Your task to perform on an android device: Set the phone to "Do not disturb". Image 0: 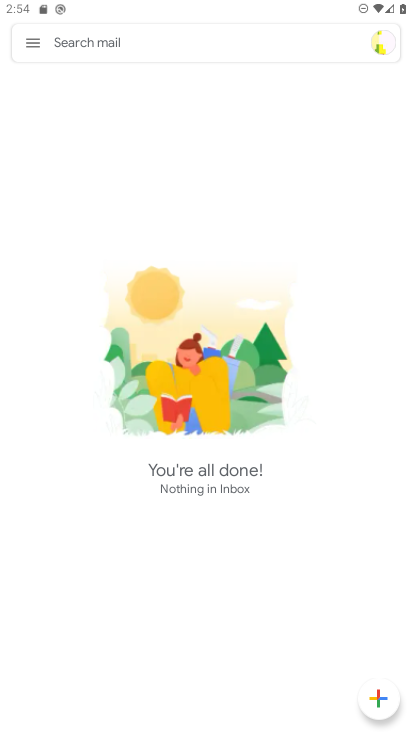
Step 0: click (36, 42)
Your task to perform on an android device: Set the phone to "Do not disturb". Image 1: 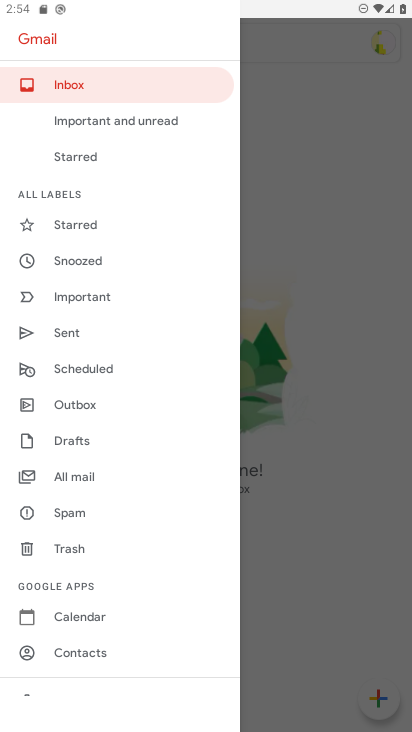
Step 1: click (296, 559)
Your task to perform on an android device: Set the phone to "Do not disturb". Image 2: 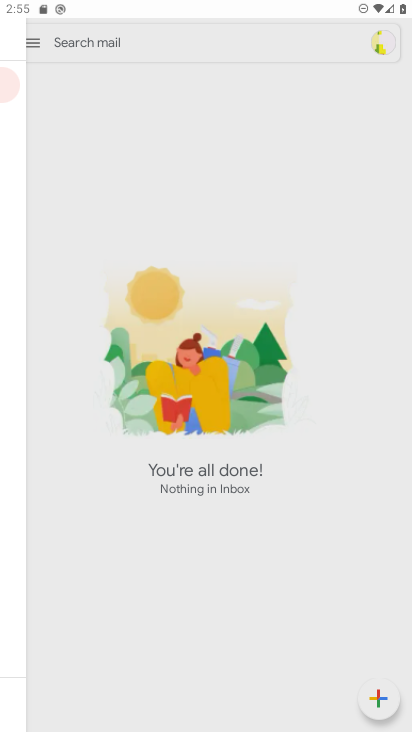
Step 2: click (299, 552)
Your task to perform on an android device: Set the phone to "Do not disturb". Image 3: 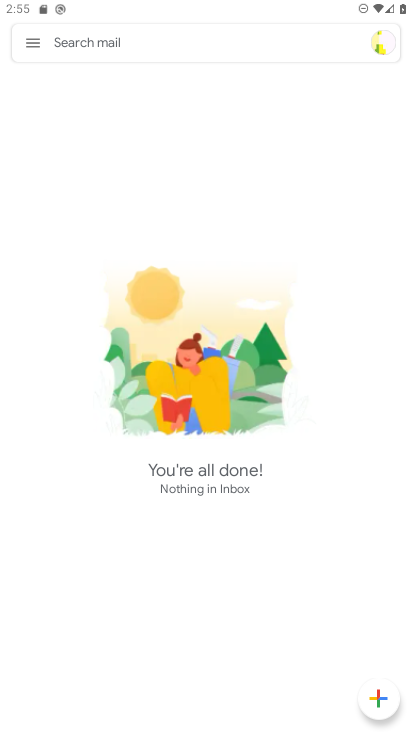
Step 3: click (299, 552)
Your task to perform on an android device: Set the phone to "Do not disturb". Image 4: 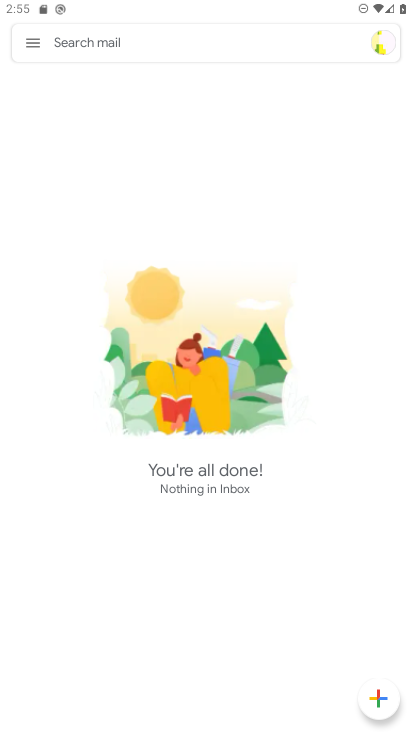
Step 4: click (27, 37)
Your task to perform on an android device: Set the phone to "Do not disturb". Image 5: 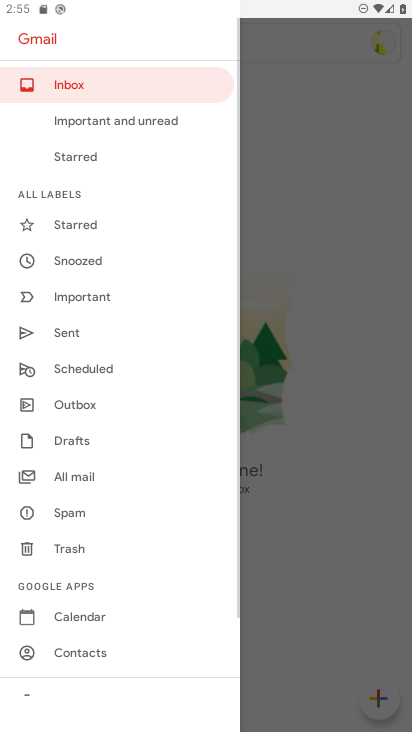
Step 5: click (324, 277)
Your task to perform on an android device: Set the phone to "Do not disturb". Image 6: 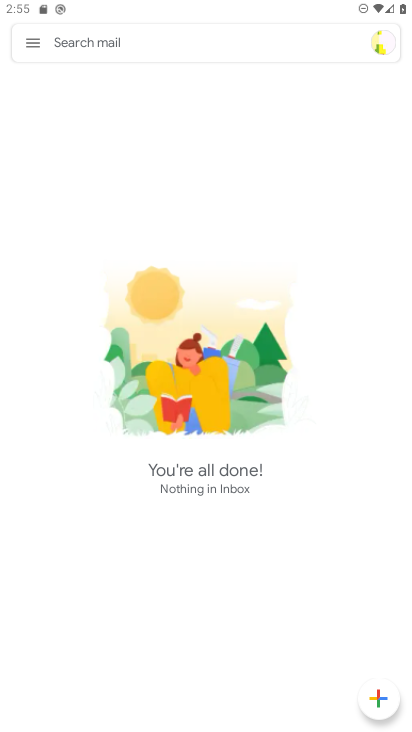
Step 6: click (34, 43)
Your task to perform on an android device: Set the phone to "Do not disturb". Image 7: 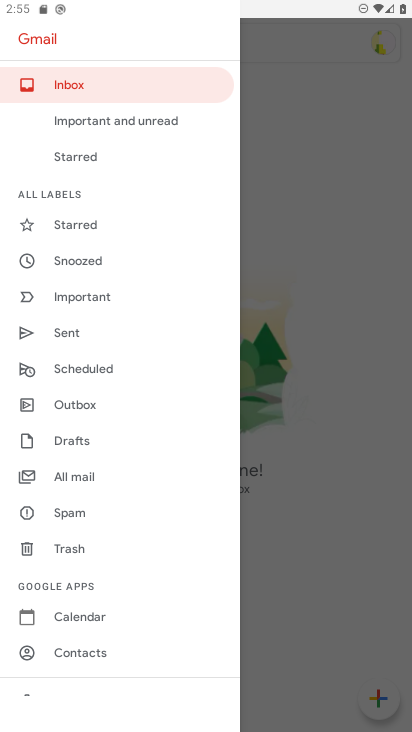
Step 7: click (314, 427)
Your task to perform on an android device: Set the phone to "Do not disturb". Image 8: 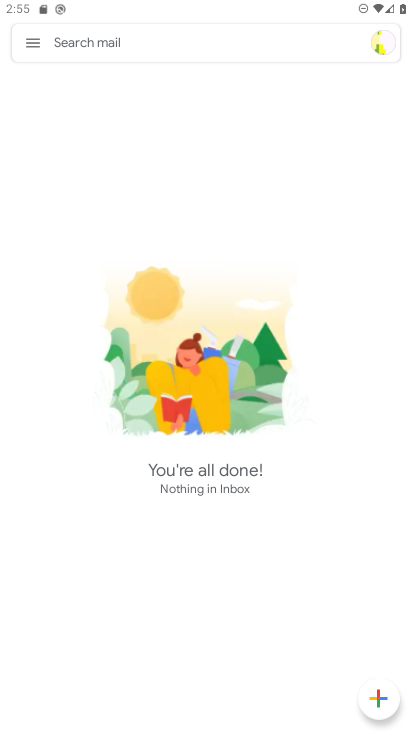
Step 8: press home button
Your task to perform on an android device: Set the phone to "Do not disturb". Image 9: 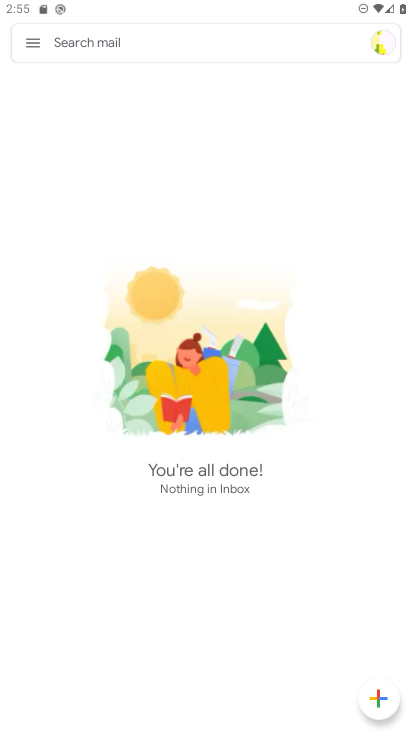
Step 9: press home button
Your task to perform on an android device: Set the phone to "Do not disturb". Image 10: 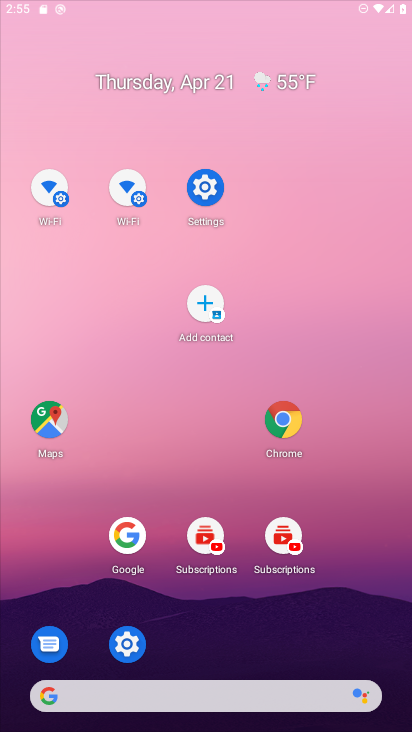
Step 10: press home button
Your task to perform on an android device: Set the phone to "Do not disturb". Image 11: 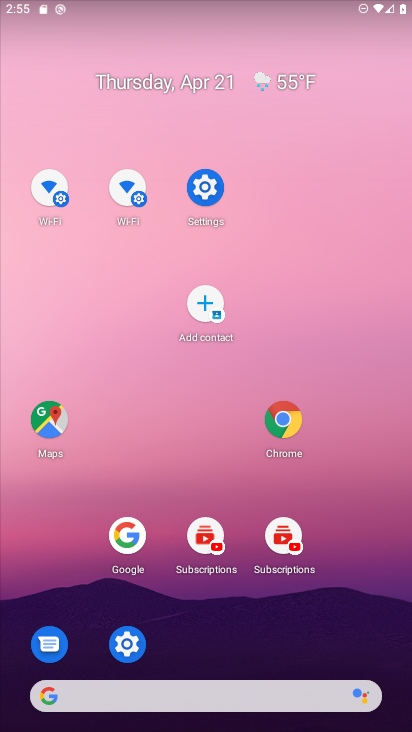
Step 11: press home button
Your task to perform on an android device: Set the phone to "Do not disturb". Image 12: 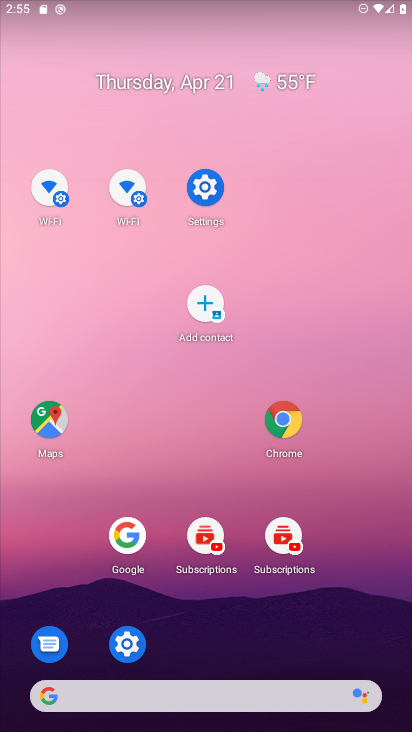
Step 12: drag from (278, 689) to (133, 0)
Your task to perform on an android device: Set the phone to "Do not disturb". Image 13: 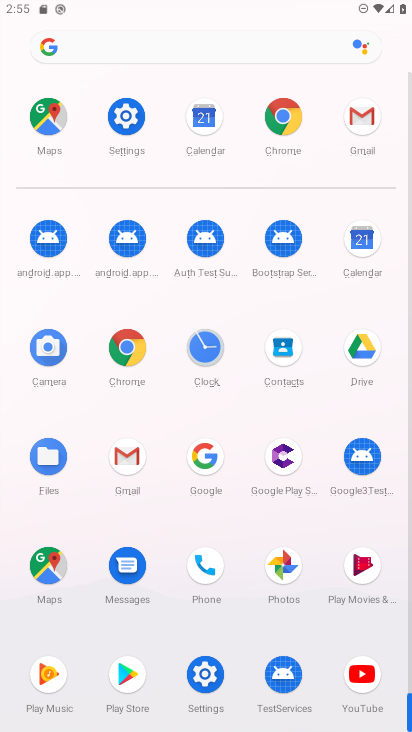
Step 13: click (122, 120)
Your task to perform on an android device: Set the phone to "Do not disturb". Image 14: 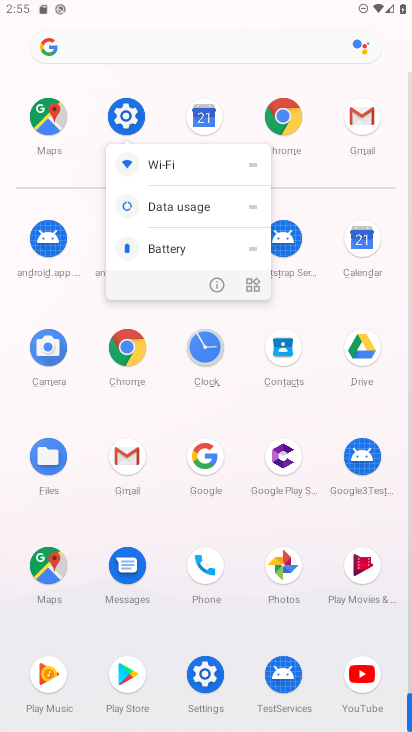
Step 14: click (124, 110)
Your task to perform on an android device: Set the phone to "Do not disturb". Image 15: 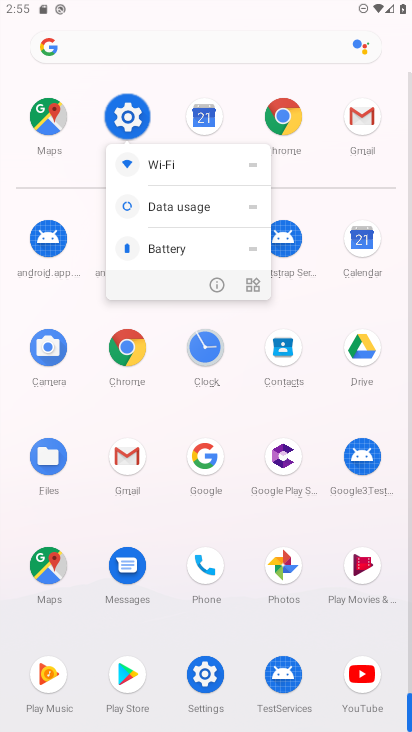
Step 15: click (122, 104)
Your task to perform on an android device: Set the phone to "Do not disturb". Image 16: 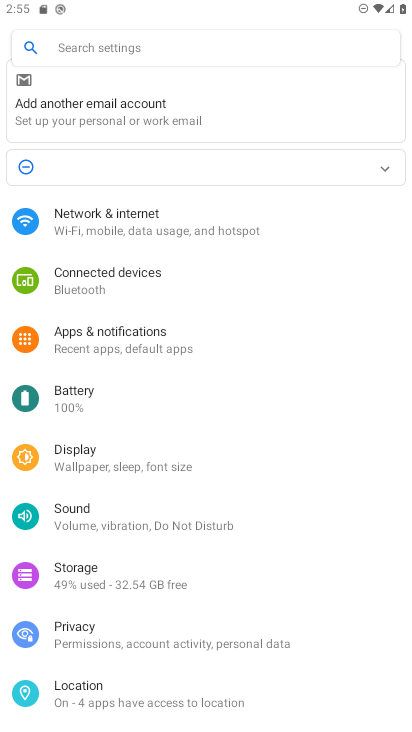
Step 16: click (77, 517)
Your task to perform on an android device: Set the phone to "Do not disturb". Image 17: 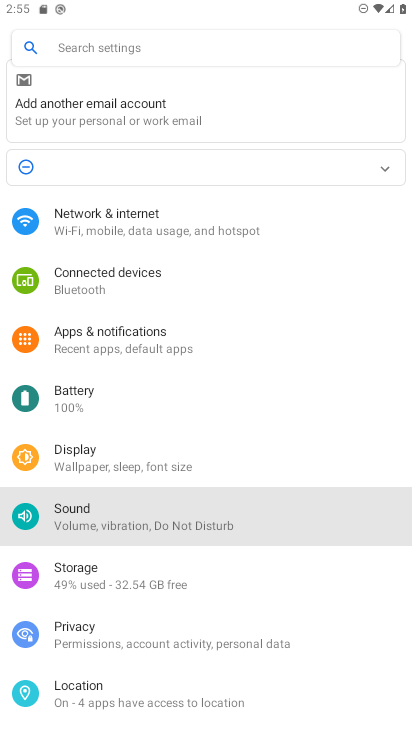
Step 17: click (77, 516)
Your task to perform on an android device: Set the phone to "Do not disturb". Image 18: 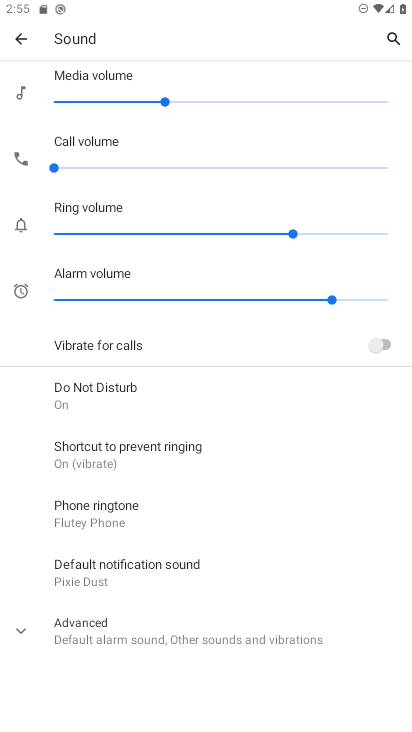
Step 18: drag from (163, 469) to (125, 129)
Your task to perform on an android device: Set the phone to "Do not disturb". Image 19: 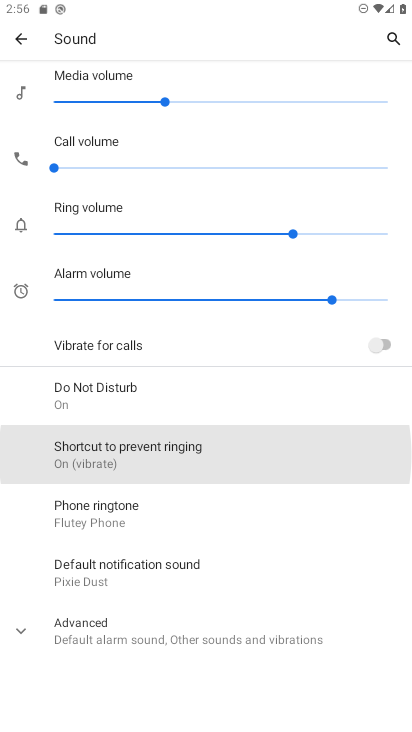
Step 19: drag from (239, 502) to (184, 126)
Your task to perform on an android device: Set the phone to "Do not disturb". Image 20: 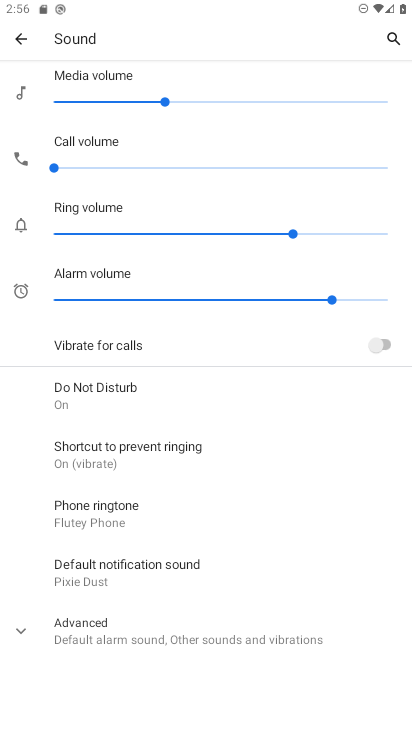
Step 20: click (73, 389)
Your task to perform on an android device: Set the phone to "Do not disturb". Image 21: 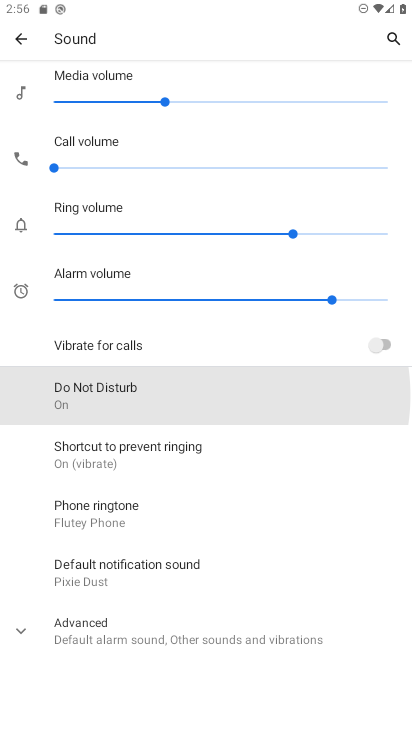
Step 21: click (73, 389)
Your task to perform on an android device: Set the phone to "Do not disturb". Image 22: 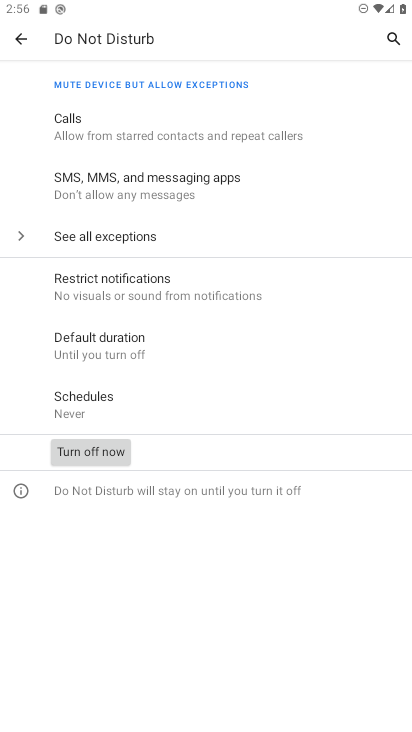
Step 22: click (97, 450)
Your task to perform on an android device: Set the phone to "Do not disturb". Image 23: 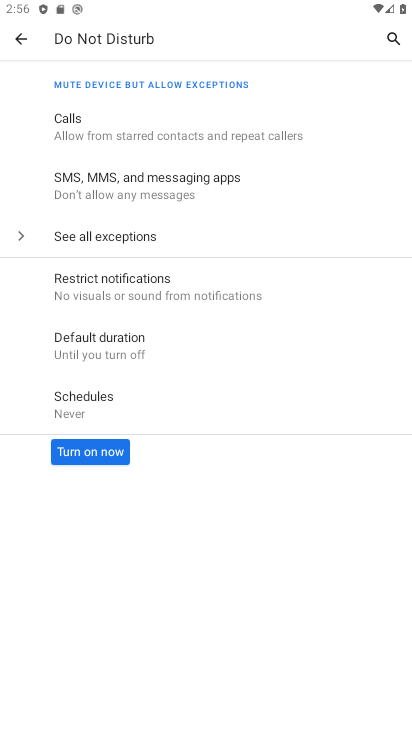
Step 23: task complete